Your task to perform on an android device: turn on airplane mode Image 0: 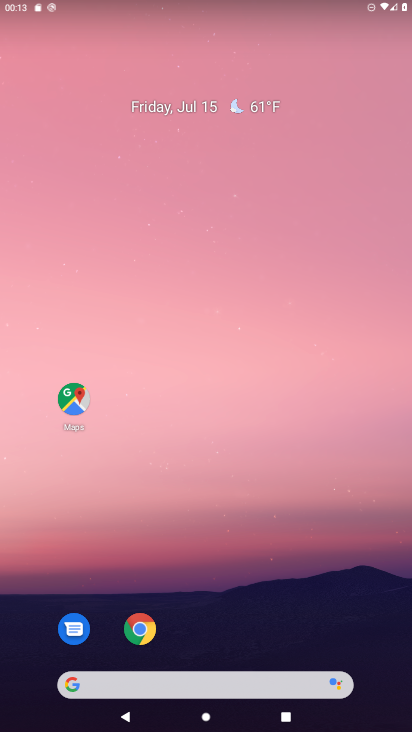
Step 0: drag from (281, 518) to (282, 604)
Your task to perform on an android device: turn on airplane mode Image 1: 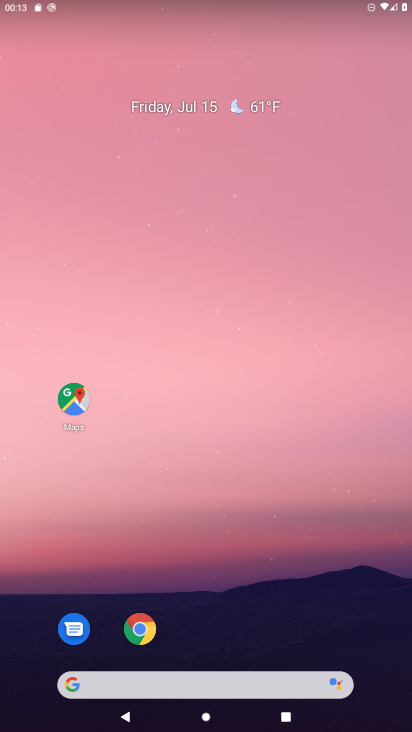
Step 1: drag from (315, 0) to (370, 608)
Your task to perform on an android device: turn on airplane mode Image 2: 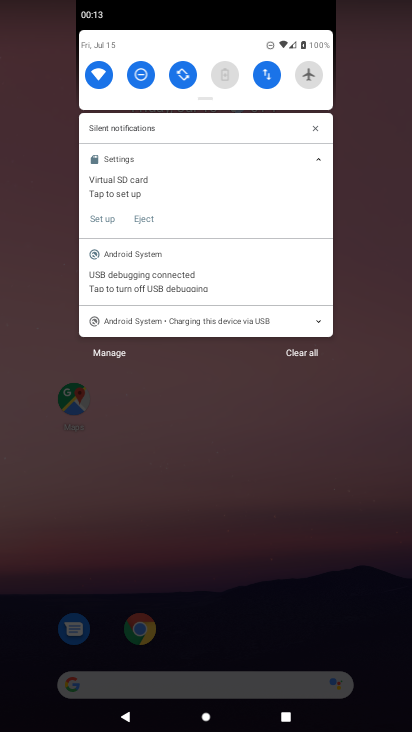
Step 2: click (314, 78)
Your task to perform on an android device: turn on airplane mode Image 3: 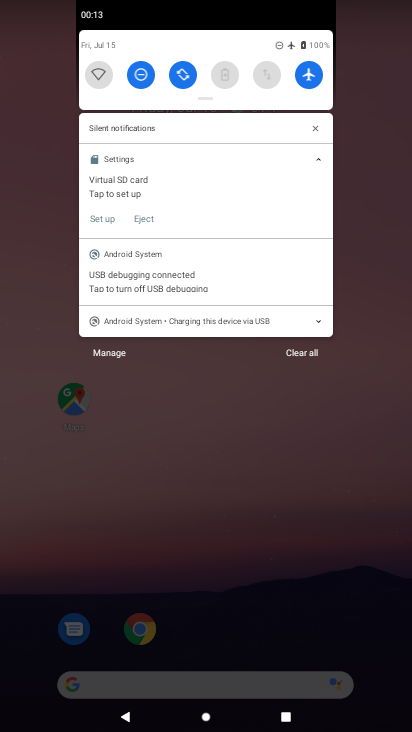
Step 3: task complete